Your task to perform on an android device: change the clock display to digital Image 0: 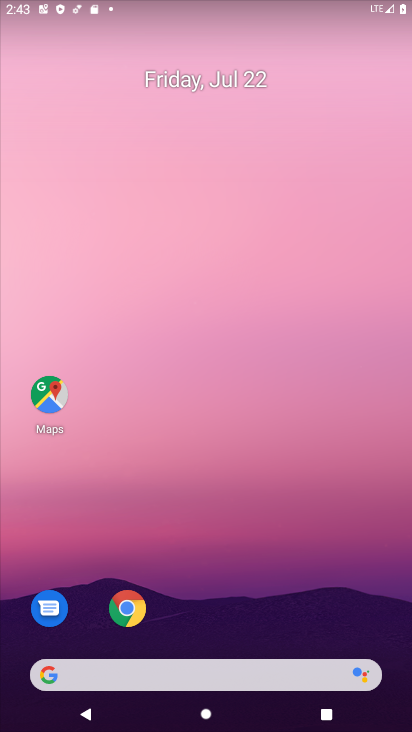
Step 0: drag from (235, 607) to (252, 112)
Your task to perform on an android device: change the clock display to digital Image 1: 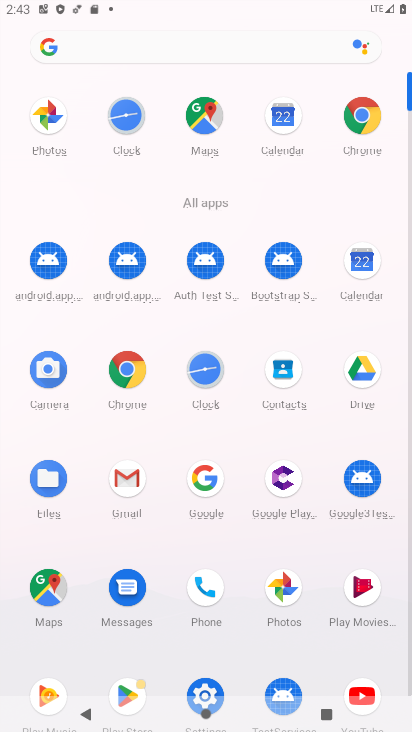
Step 1: click (207, 361)
Your task to perform on an android device: change the clock display to digital Image 2: 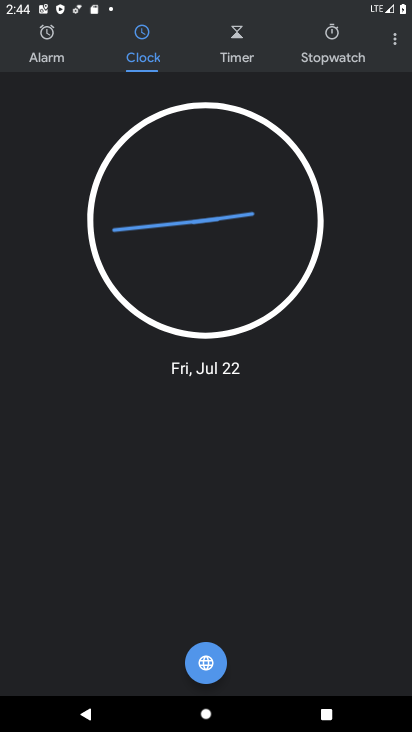
Step 2: click (401, 38)
Your task to perform on an android device: change the clock display to digital Image 3: 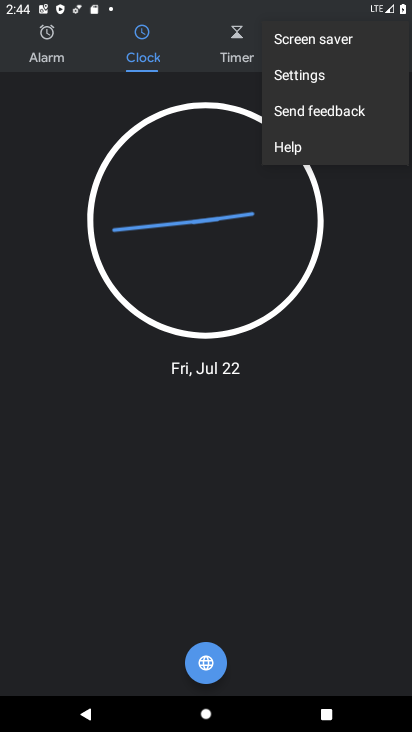
Step 3: click (320, 73)
Your task to perform on an android device: change the clock display to digital Image 4: 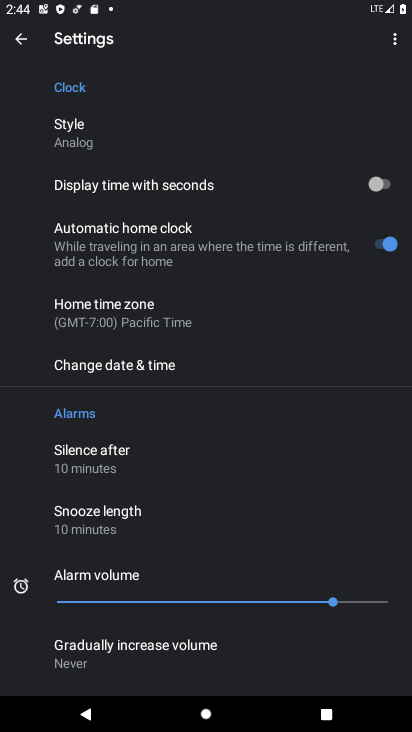
Step 4: click (88, 125)
Your task to perform on an android device: change the clock display to digital Image 5: 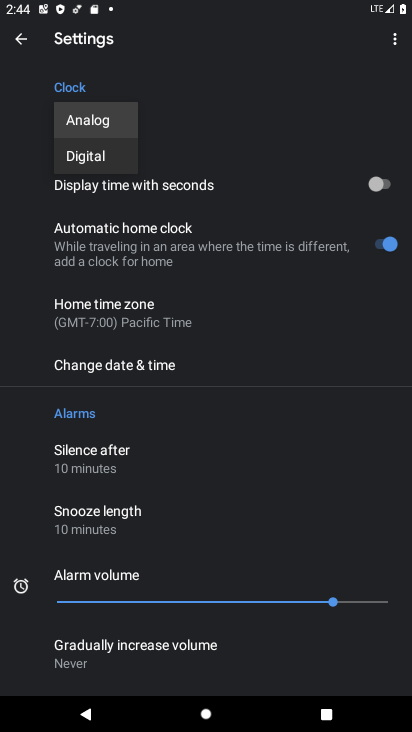
Step 5: click (100, 156)
Your task to perform on an android device: change the clock display to digital Image 6: 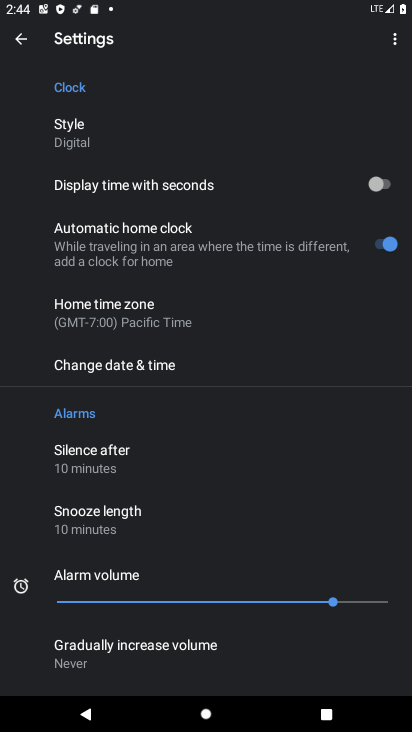
Step 6: task complete